Your task to perform on an android device: Search for "dell xps" on walmart.com, select the first entry, add it to the cart, then select checkout. Image 0: 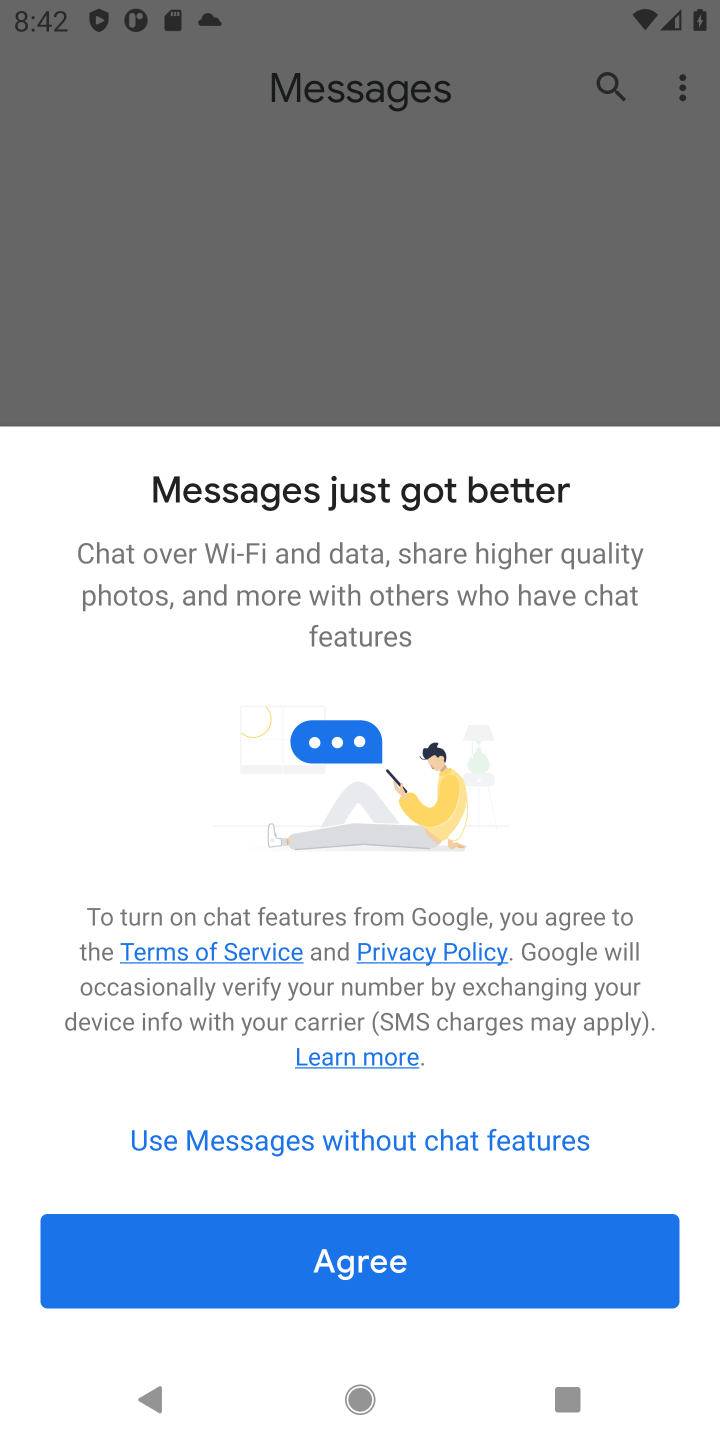
Step 0: press home button
Your task to perform on an android device: Search for "dell xps" on walmart.com, select the first entry, add it to the cart, then select checkout. Image 1: 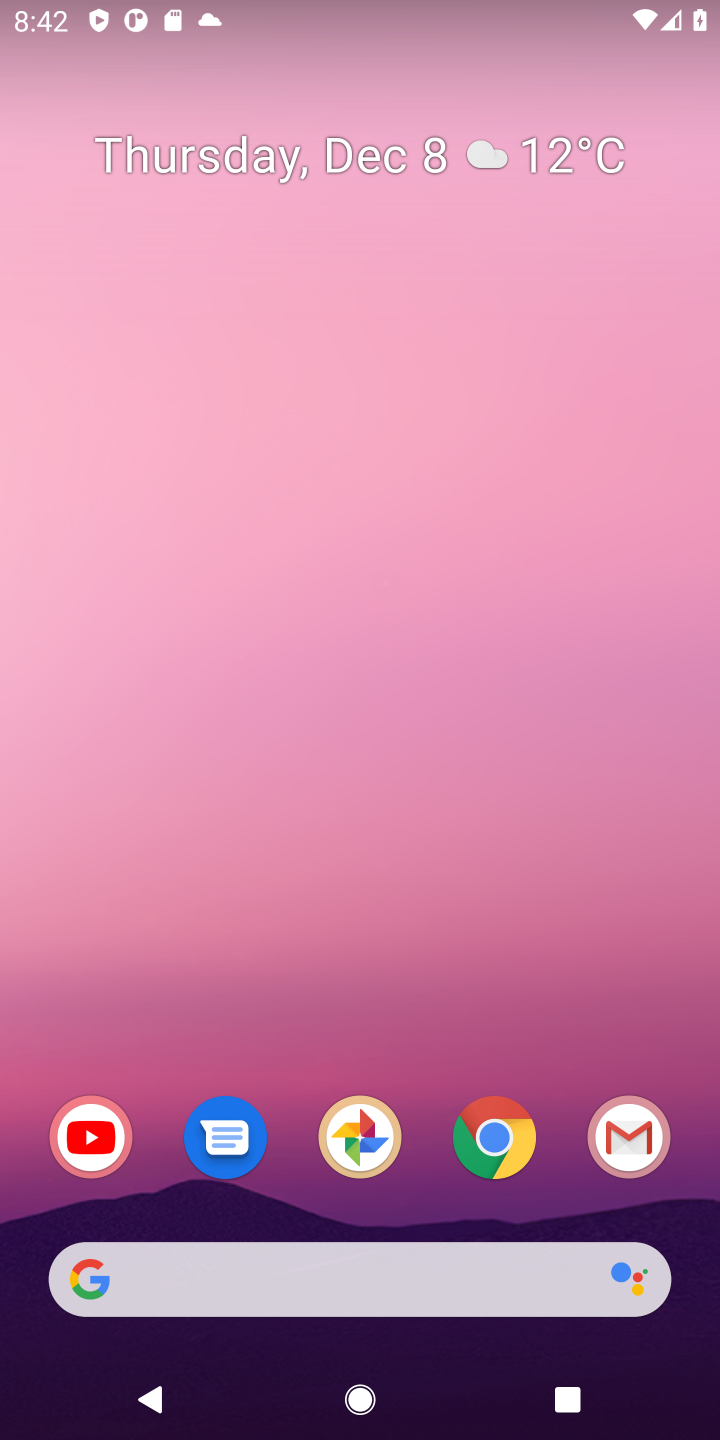
Step 1: click (469, 1119)
Your task to perform on an android device: Search for "dell xps" on walmart.com, select the first entry, add it to the cart, then select checkout. Image 2: 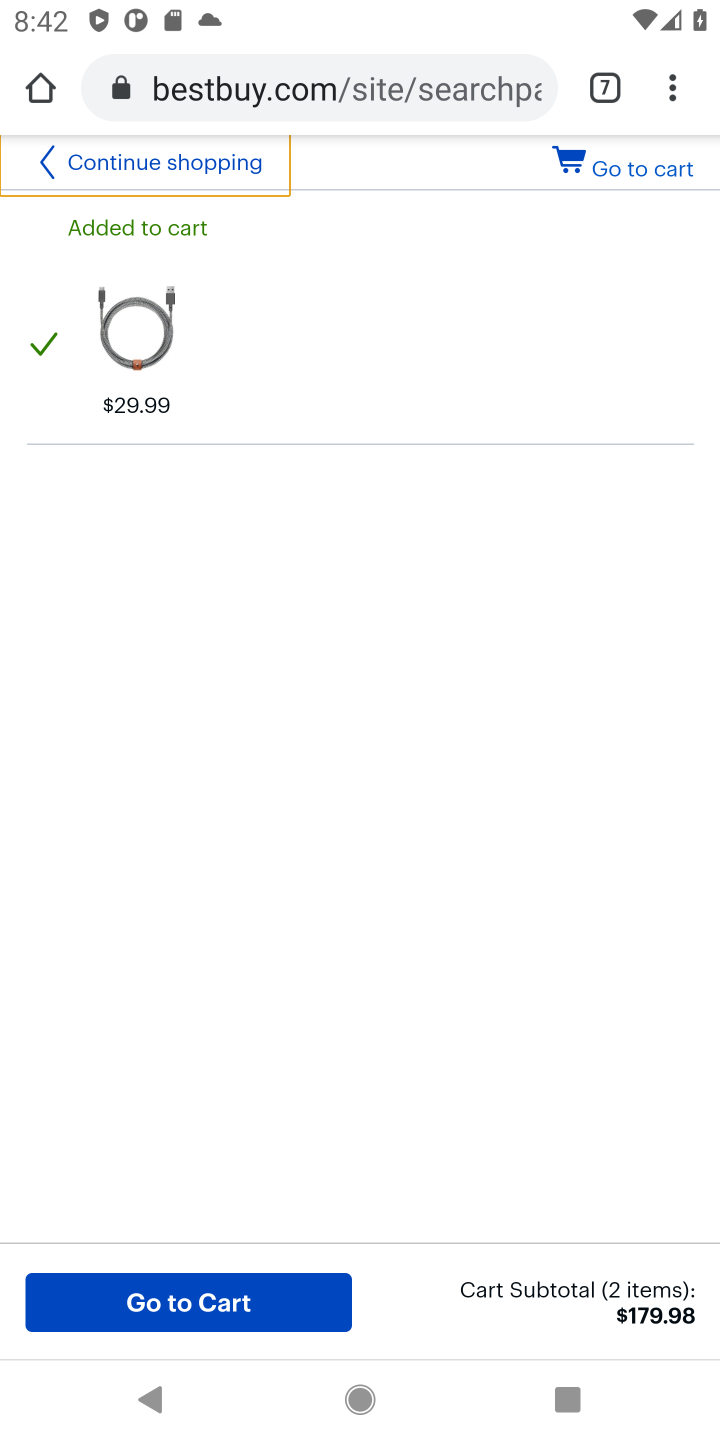
Step 2: click (598, 82)
Your task to perform on an android device: Search for "dell xps" on walmart.com, select the first entry, add it to the cart, then select checkout. Image 3: 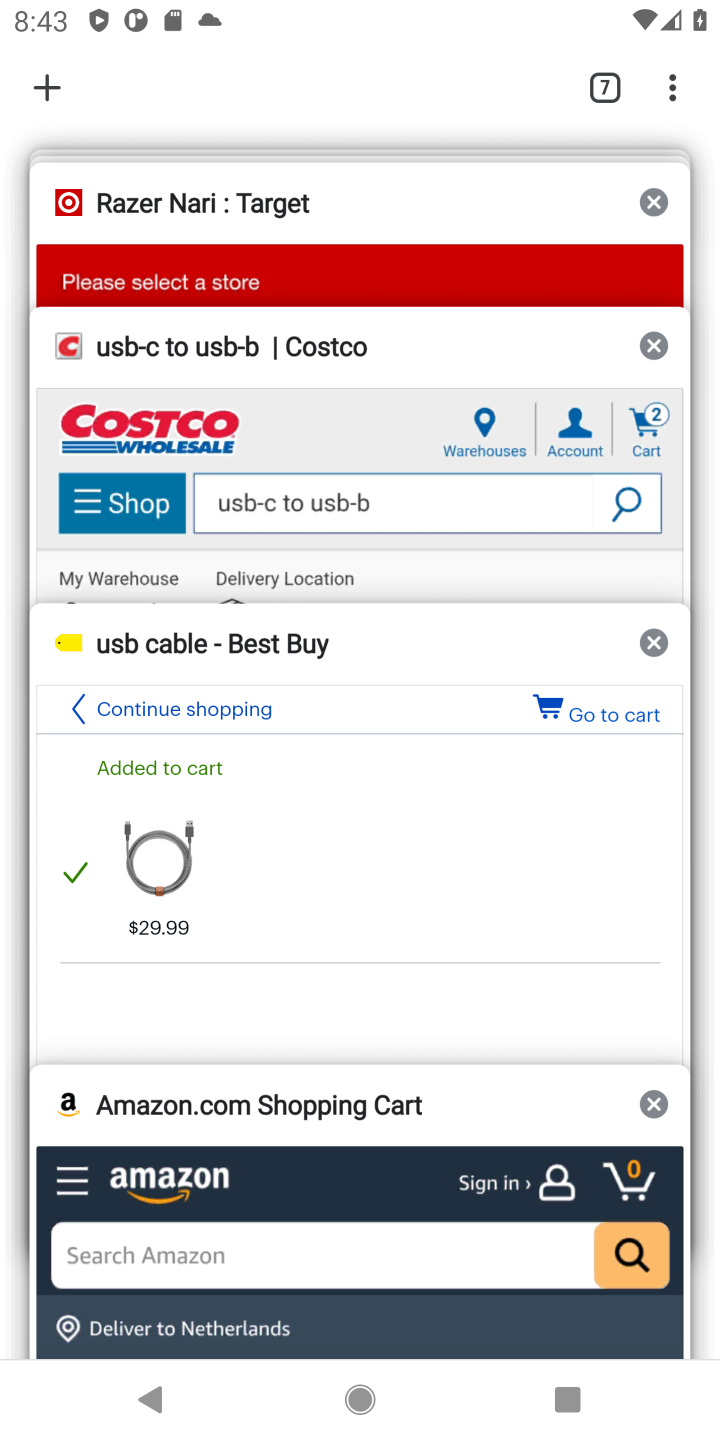
Step 3: drag from (498, 192) to (358, 964)
Your task to perform on an android device: Search for "dell xps" on walmart.com, select the first entry, add it to the cart, then select checkout. Image 4: 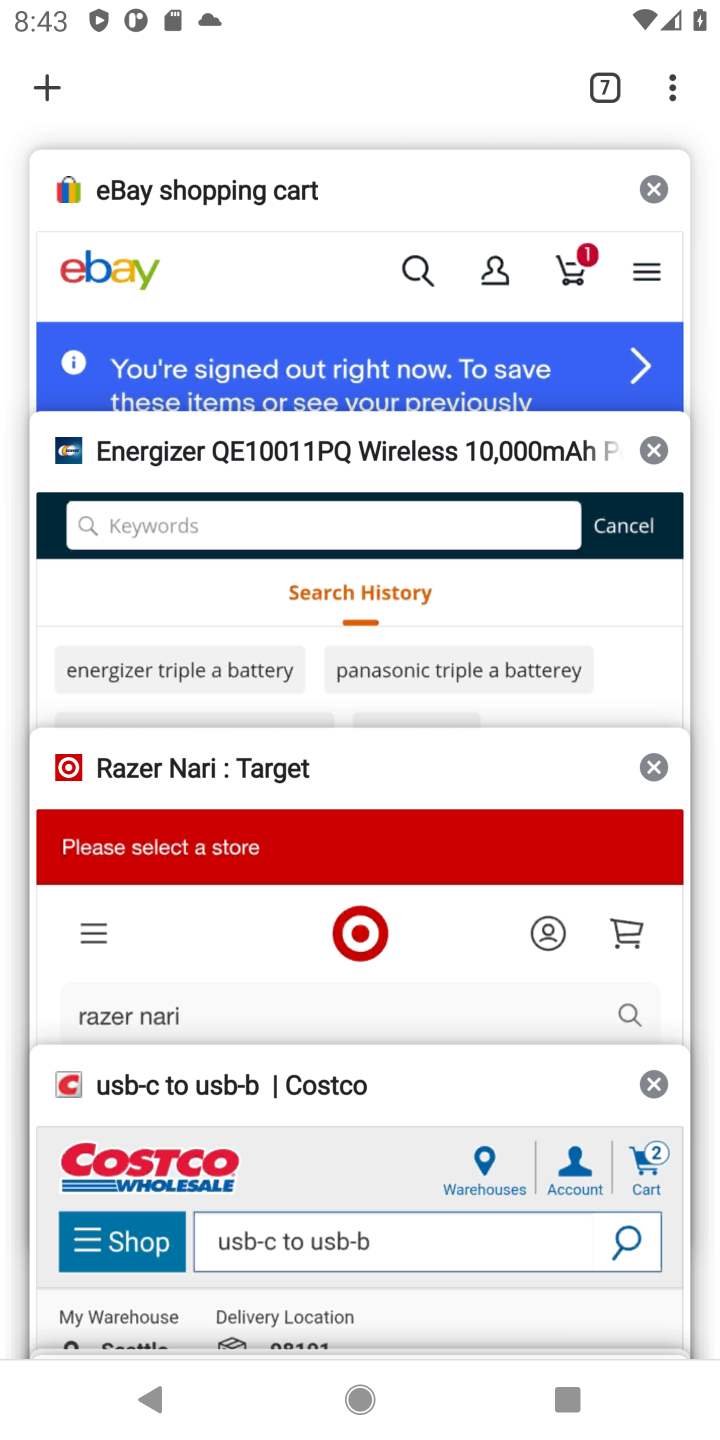
Step 4: drag from (409, 1200) to (448, 825)
Your task to perform on an android device: Search for "dell xps" on walmart.com, select the first entry, add it to the cart, then select checkout. Image 5: 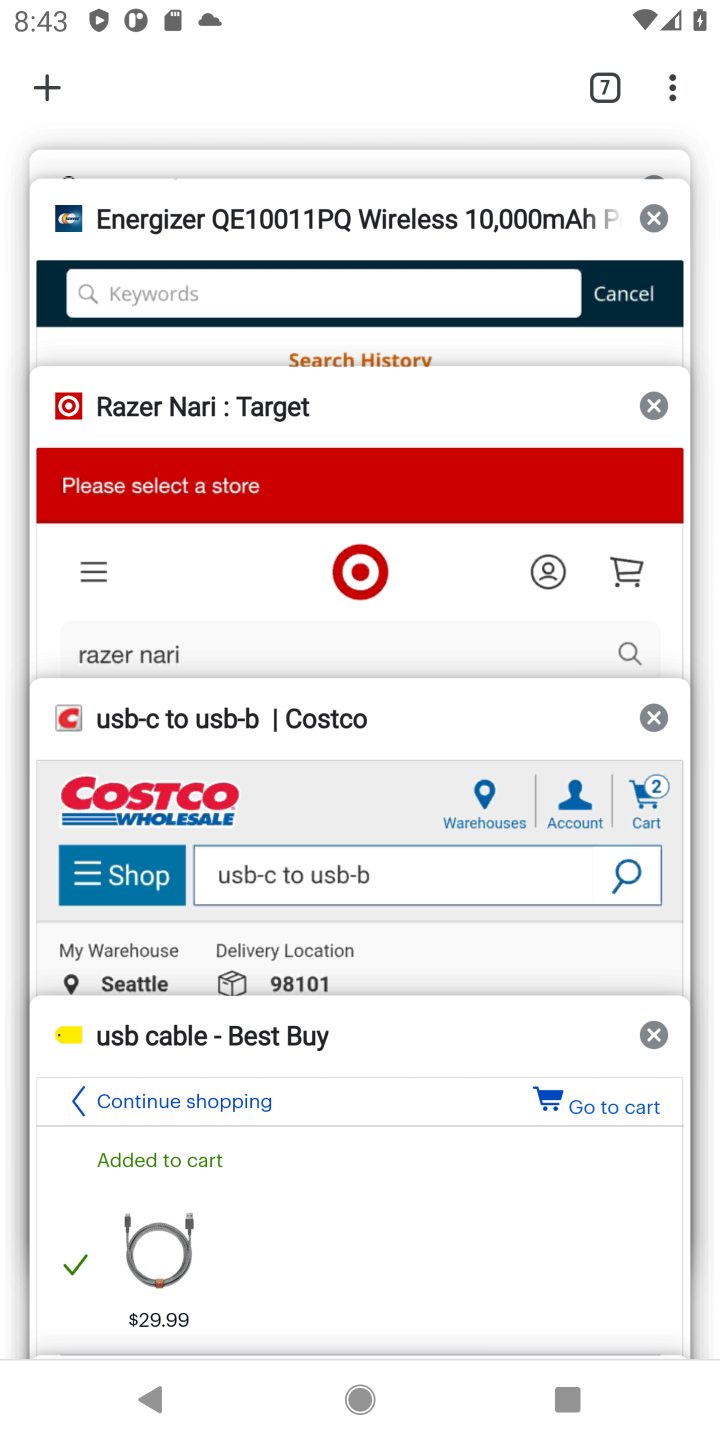
Step 5: drag from (302, 1340) to (383, 829)
Your task to perform on an android device: Search for "dell xps" on walmart.com, select the first entry, add it to the cart, then select checkout. Image 6: 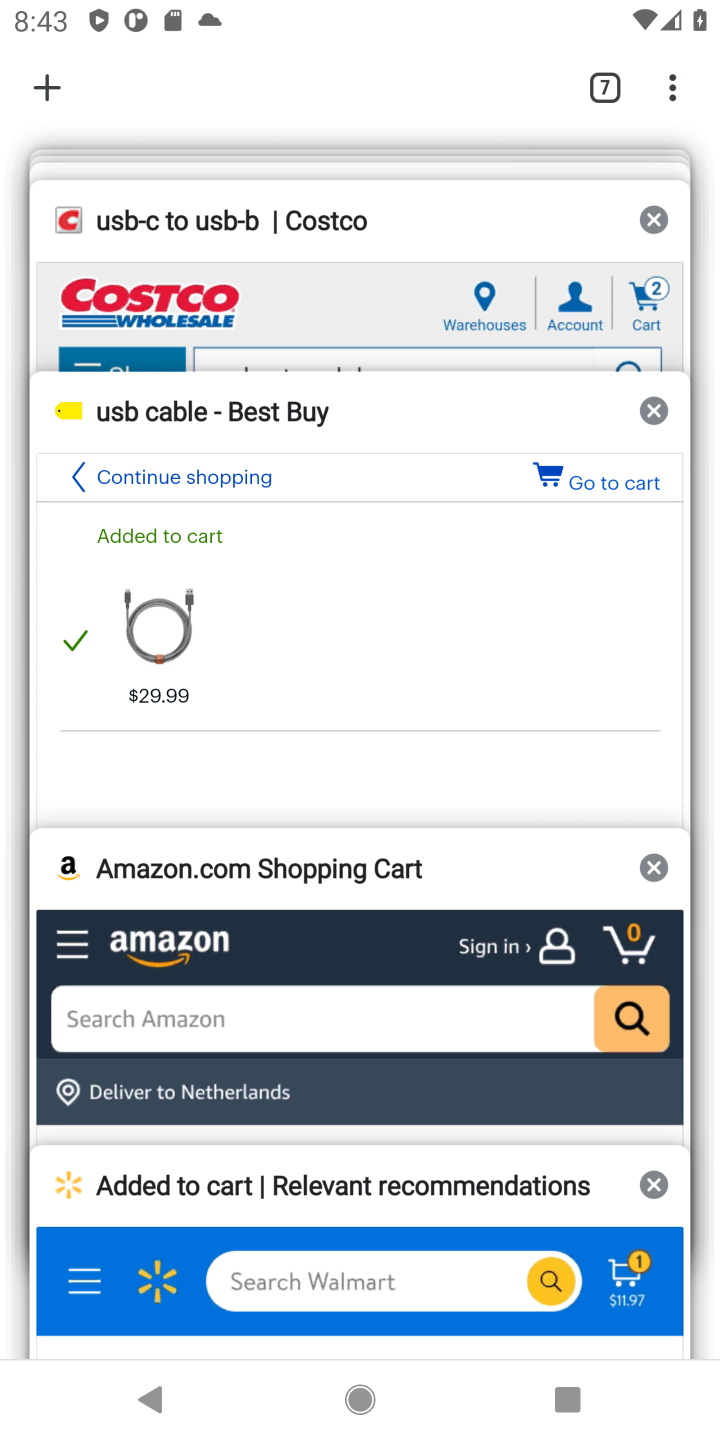
Step 6: click (341, 1247)
Your task to perform on an android device: Search for "dell xps" on walmart.com, select the first entry, add it to the cart, then select checkout. Image 7: 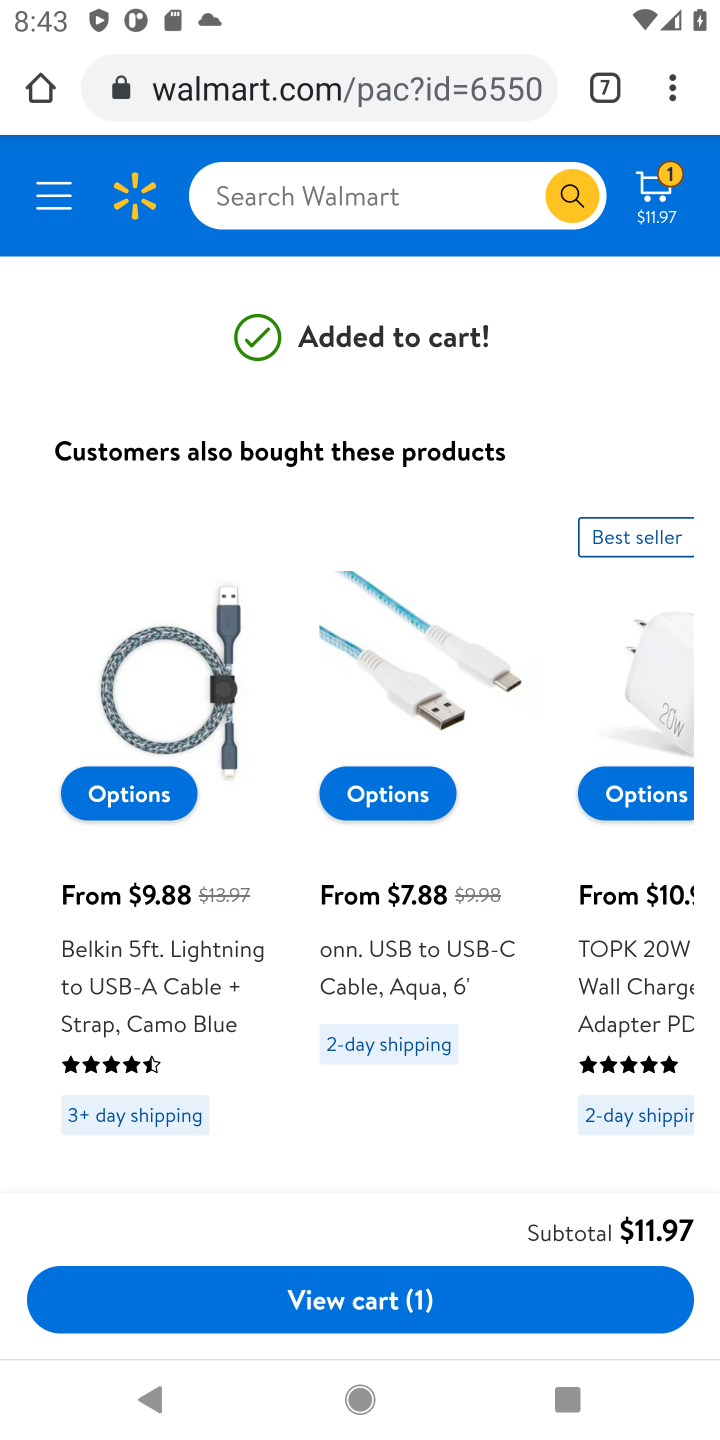
Step 7: click (359, 213)
Your task to perform on an android device: Search for "dell xps" on walmart.com, select the first entry, add it to the cart, then select checkout. Image 8: 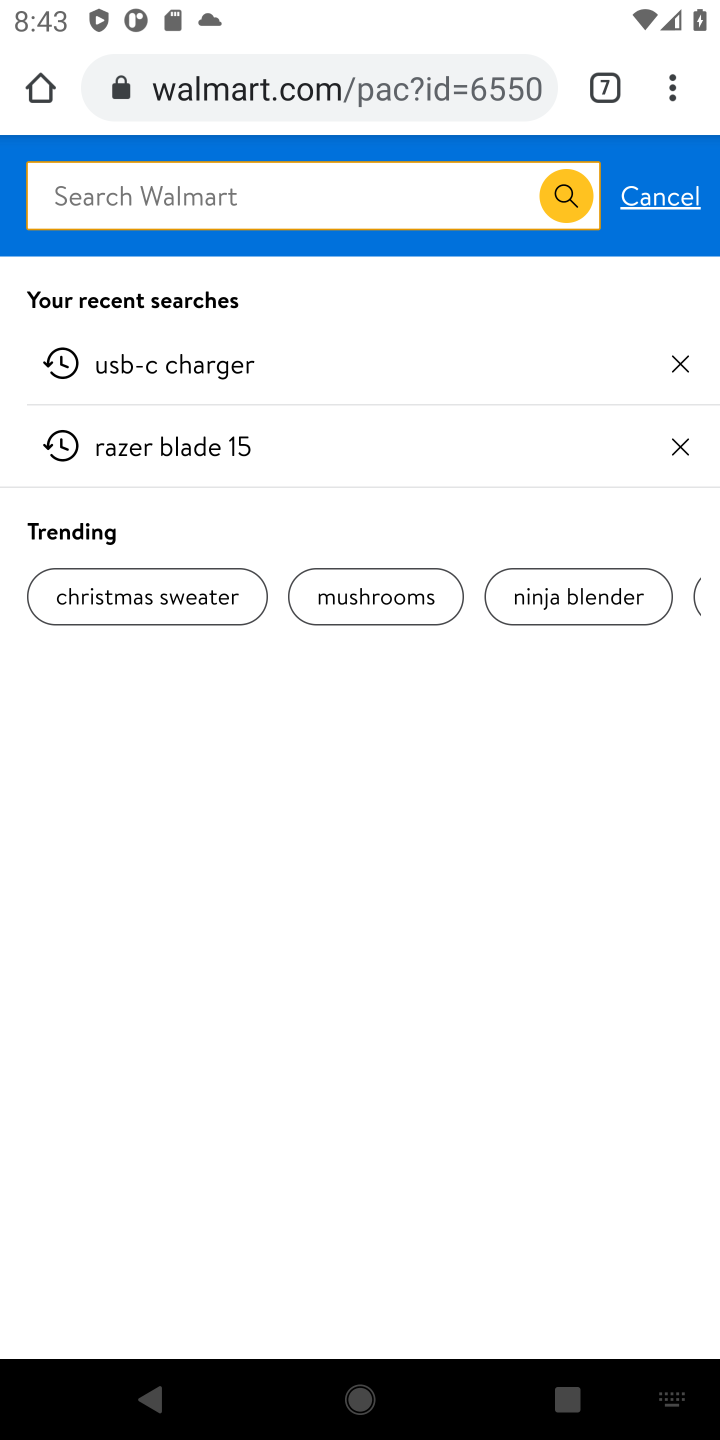
Step 8: type "dell xps"
Your task to perform on an android device: Search for "dell xps" on walmart.com, select the first entry, add it to the cart, then select checkout. Image 9: 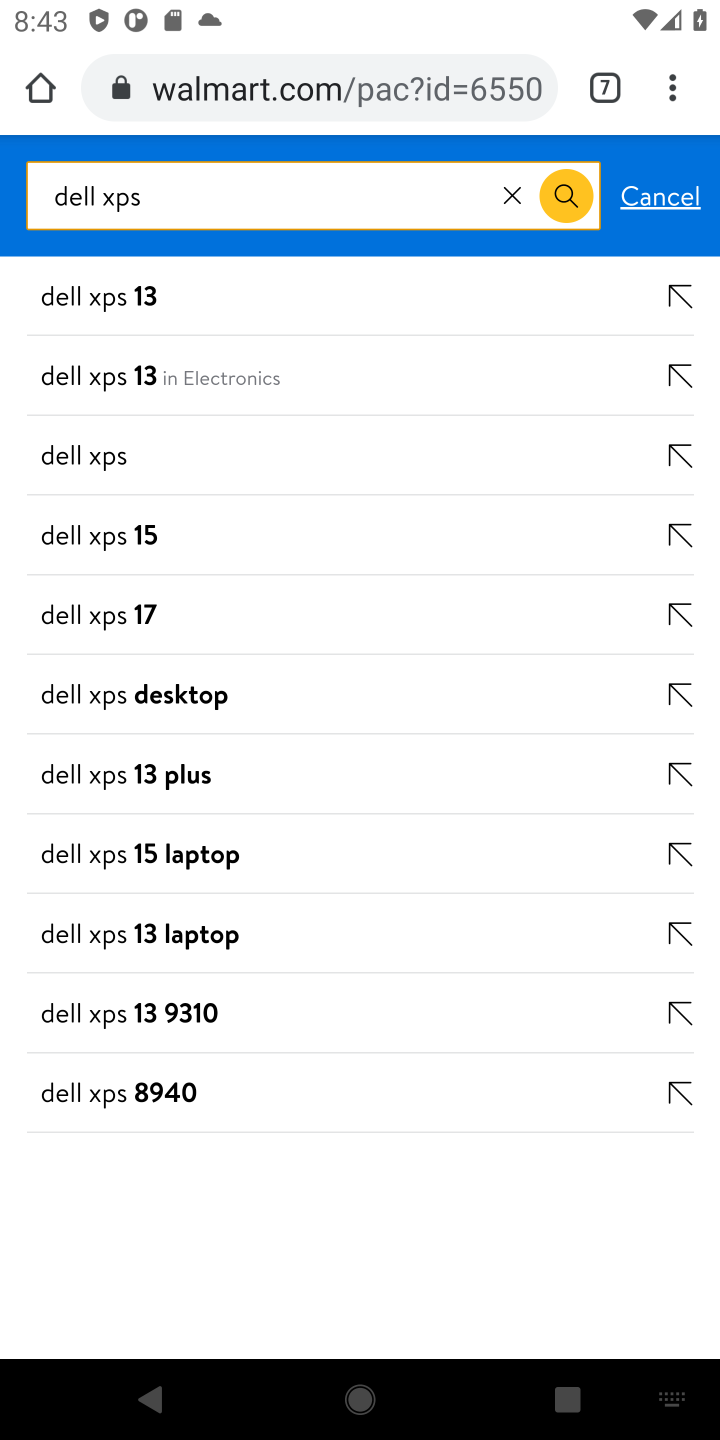
Step 9: click (134, 389)
Your task to perform on an android device: Search for "dell xps" on walmart.com, select the first entry, add it to the cart, then select checkout. Image 10: 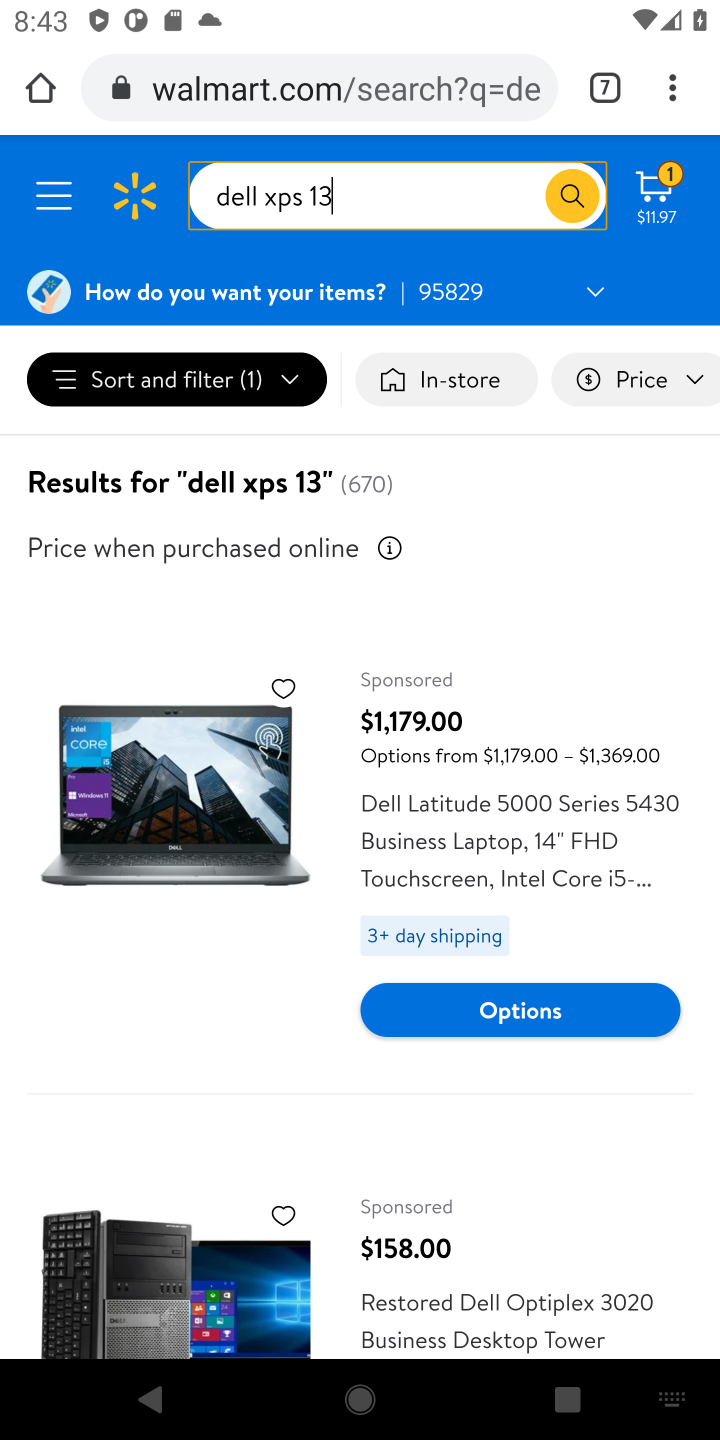
Step 10: drag from (536, 1180) to (694, 506)
Your task to perform on an android device: Search for "dell xps" on walmart.com, select the first entry, add it to the cart, then select checkout. Image 11: 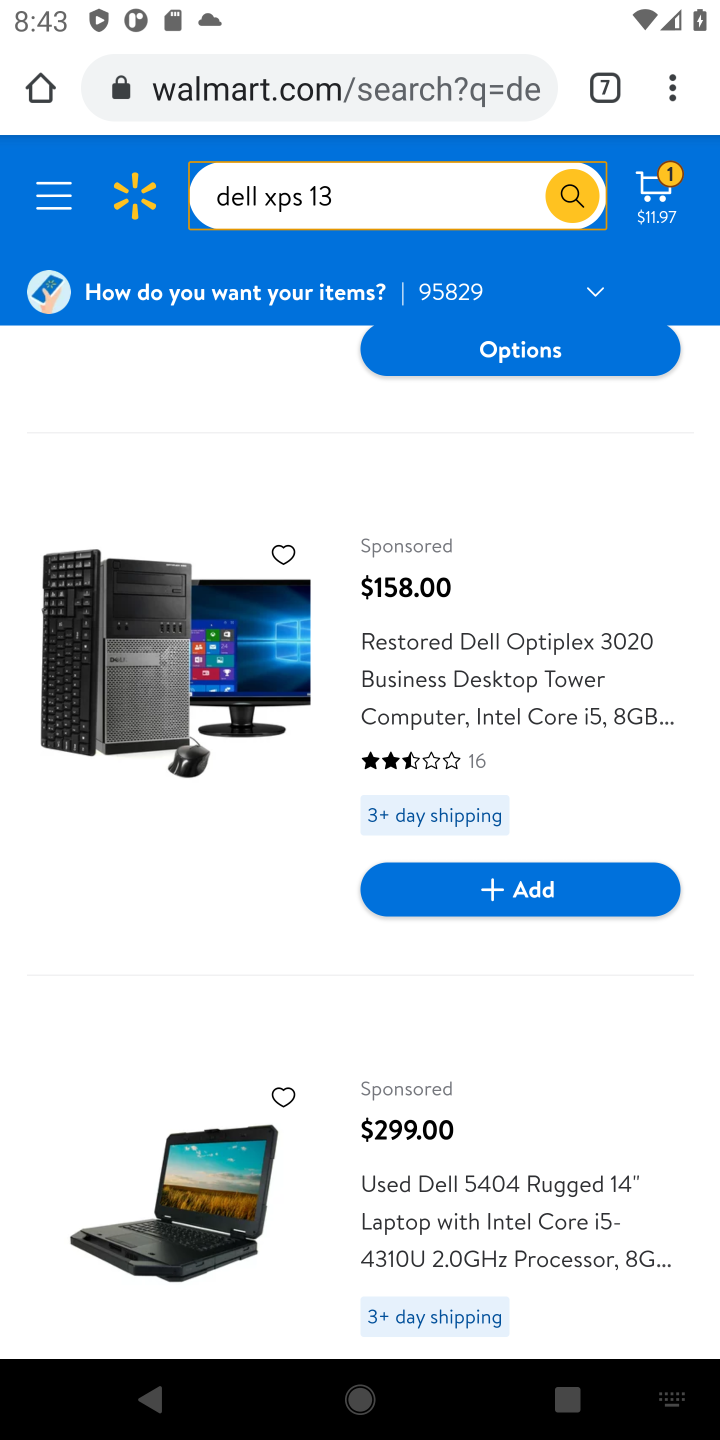
Step 11: drag from (348, 1014) to (403, 586)
Your task to perform on an android device: Search for "dell xps" on walmart.com, select the first entry, add it to the cart, then select checkout. Image 12: 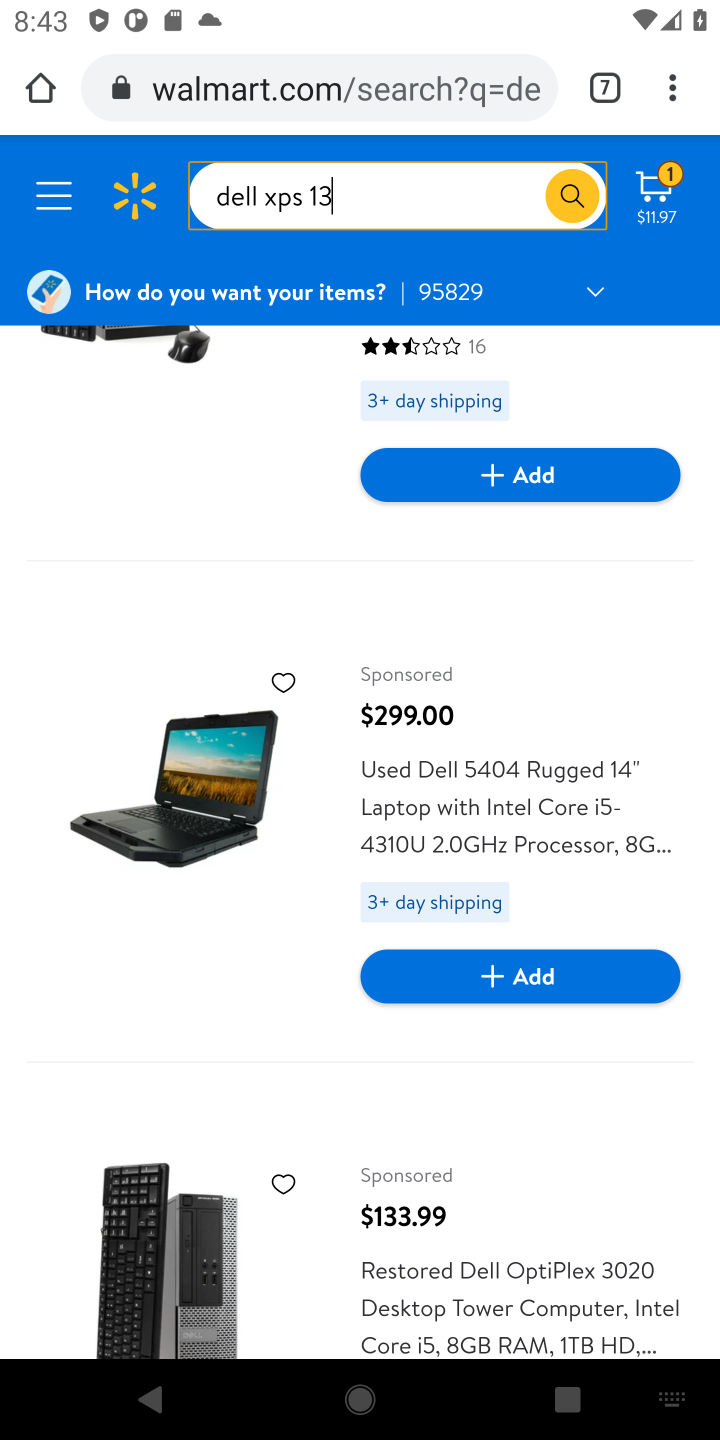
Step 12: drag from (320, 1123) to (459, 626)
Your task to perform on an android device: Search for "dell xps" on walmart.com, select the first entry, add it to the cart, then select checkout. Image 13: 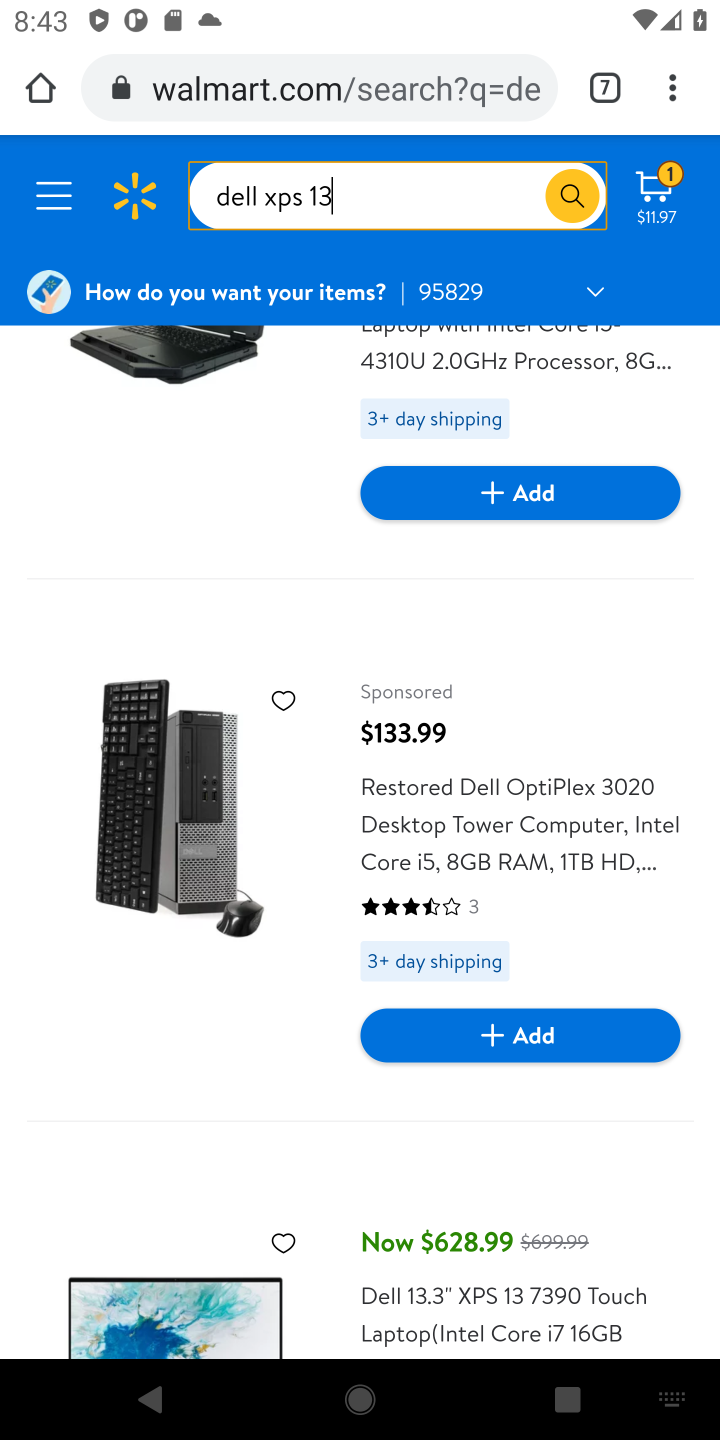
Step 13: drag from (389, 1169) to (468, 814)
Your task to perform on an android device: Search for "dell xps" on walmart.com, select the first entry, add it to the cart, then select checkout. Image 14: 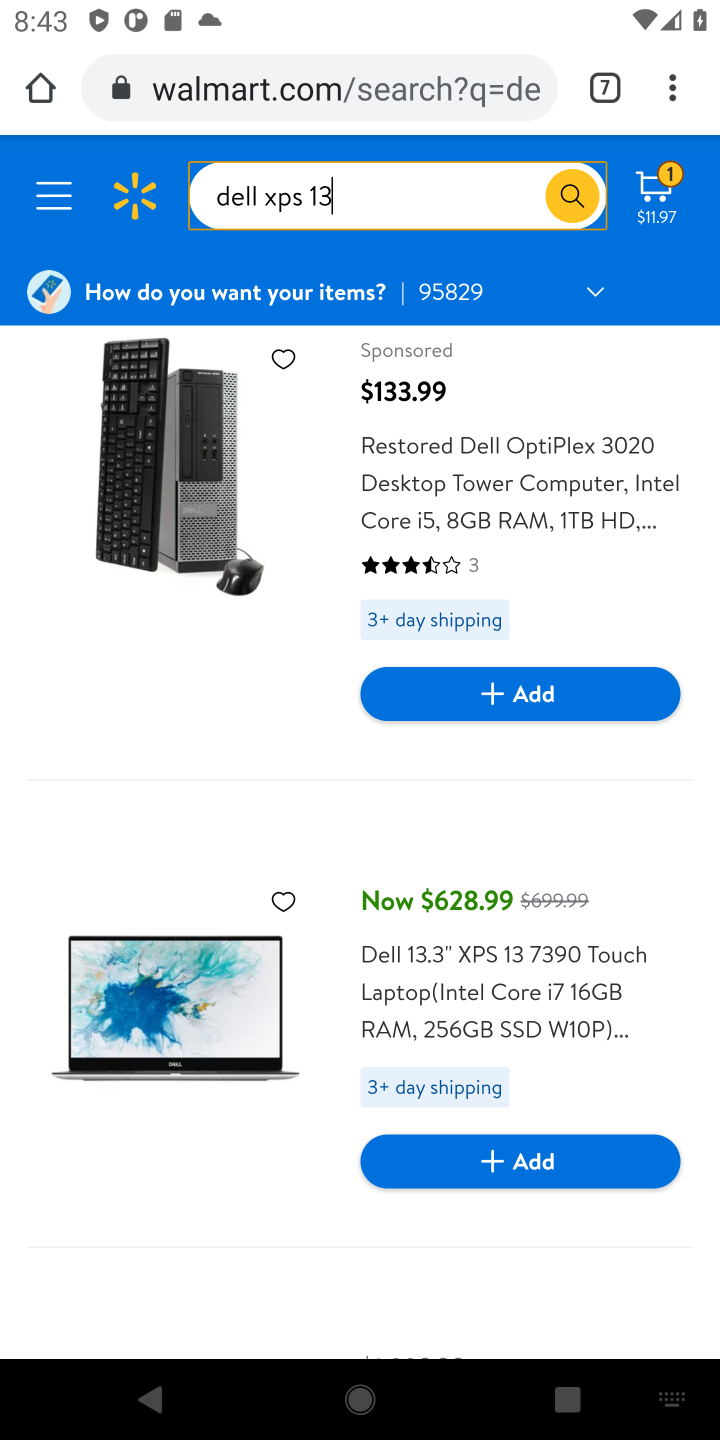
Step 14: click (531, 1152)
Your task to perform on an android device: Search for "dell xps" on walmart.com, select the first entry, add it to the cart, then select checkout. Image 15: 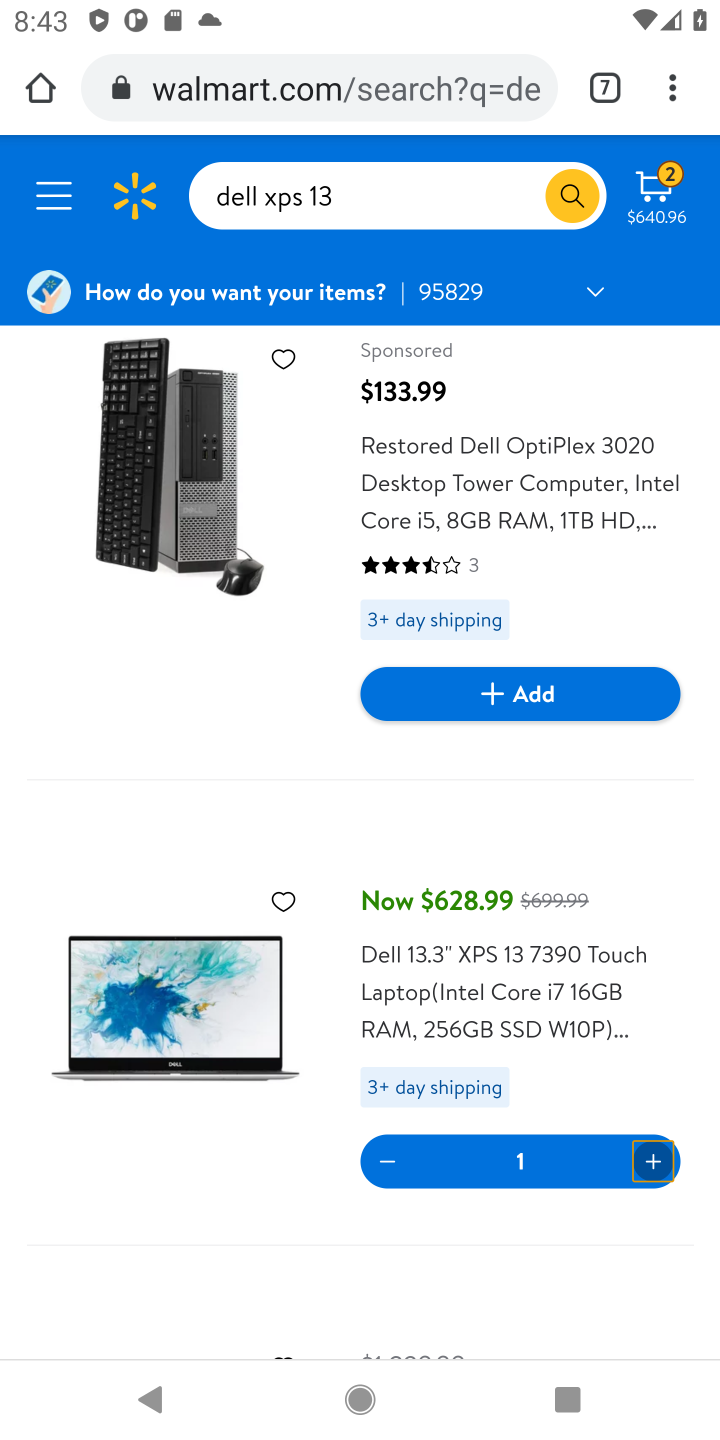
Step 15: click (666, 194)
Your task to perform on an android device: Search for "dell xps" on walmart.com, select the first entry, add it to the cart, then select checkout. Image 16: 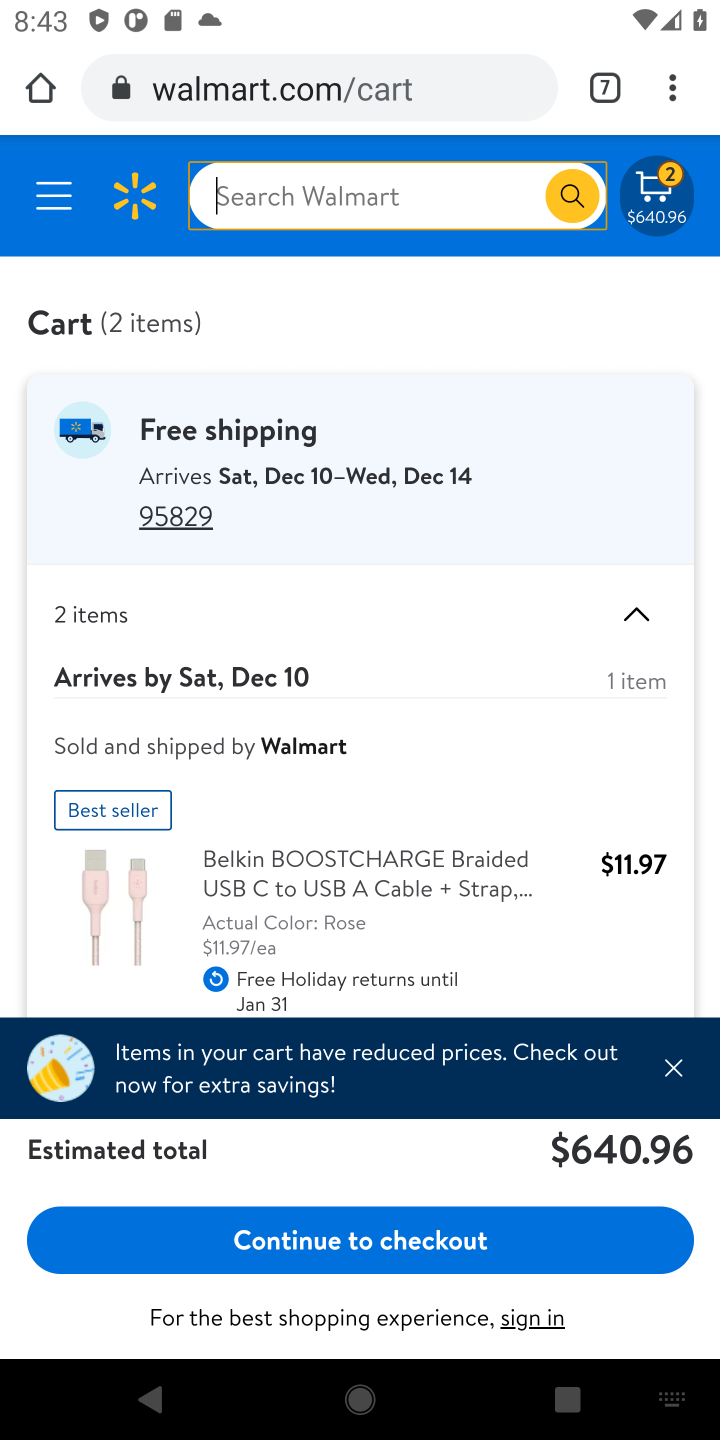
Step 16: click (234, 1241)
Your task to perform on an android device: Search for "dell xps" on walmart.com, select the first entry, add it to the cart, then select checkout. Image 17: 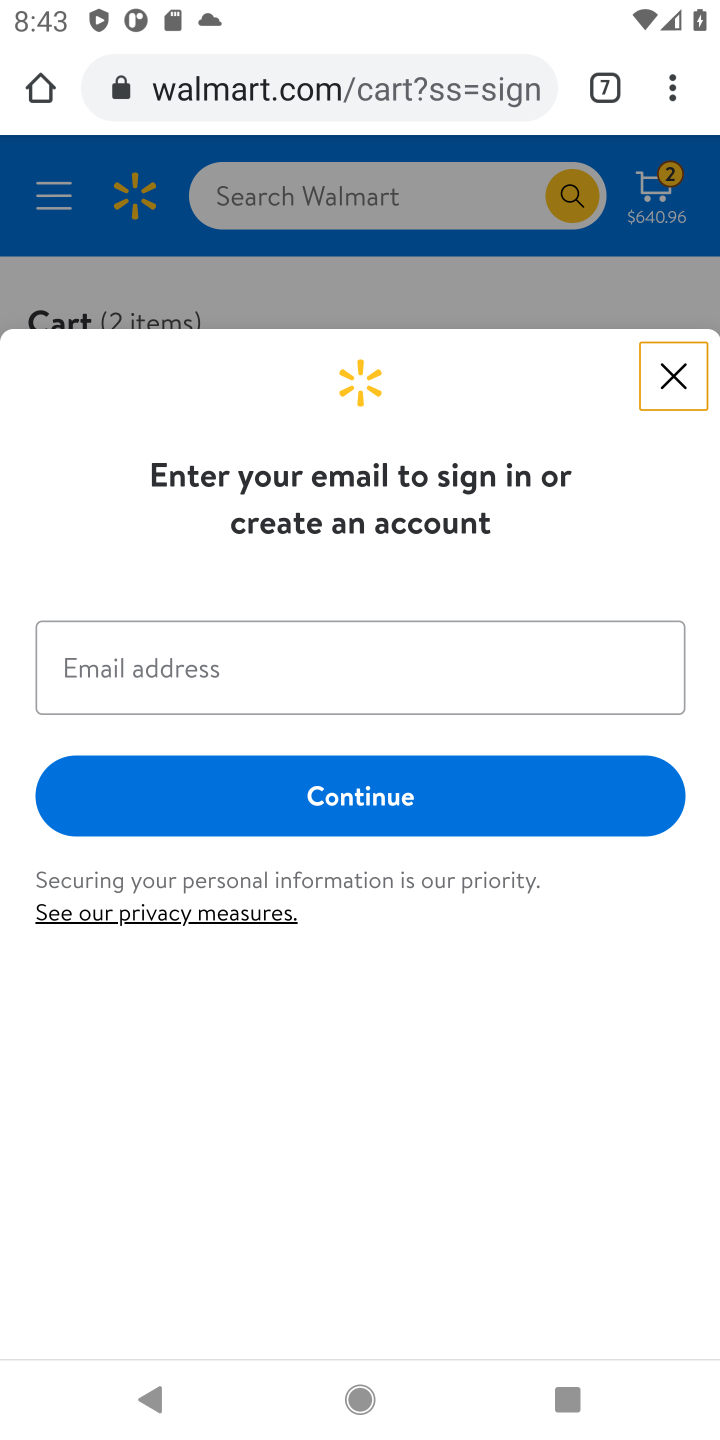
Step 17: task complete